Your task to perform on an android device: turn off improve location accuracy Image 0: 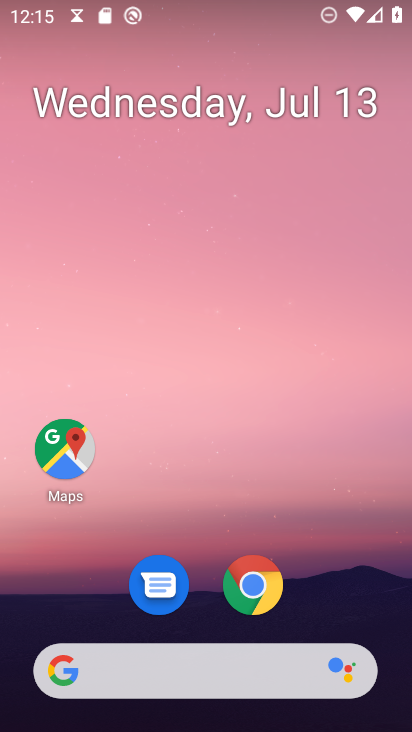
Step 0: drag from (128, 661) to (276, 106)
Your task to perform on an android device: turn off improve location accuracy Image 1: 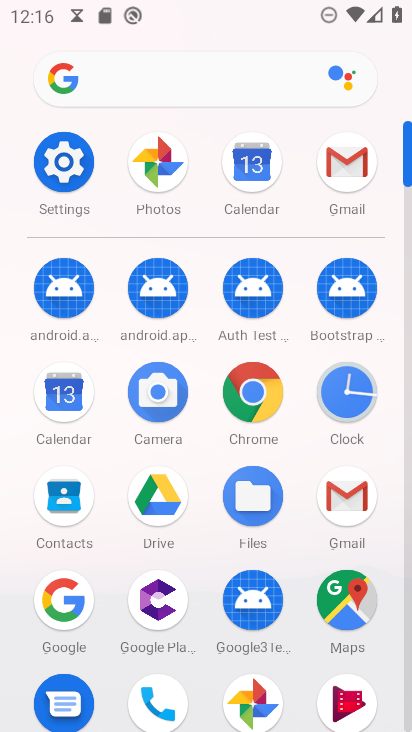
Step 1: click (64, 171)
Your task to perform on an android device: turn off improve location accuracy Image 2: 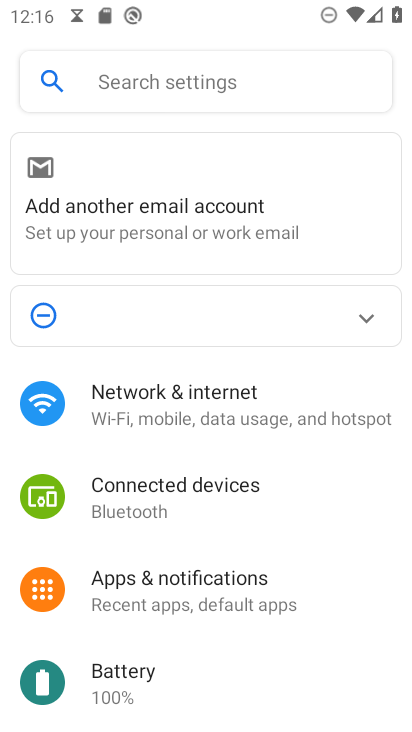
Step 2: drag from (188, 553) to (247, 193)
Your task to perform on an android device: turn off improve location accuracy Image 3: 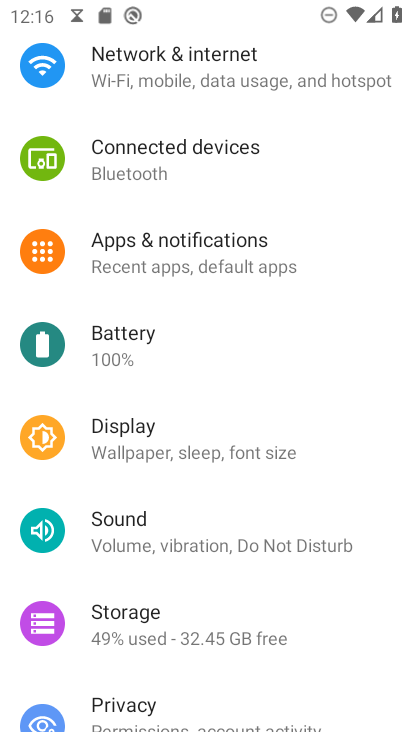
Step 3: drag from (156, 598) to (252, 330)
Your task to perform on an android device: turn off improve location accuracy Image 4: 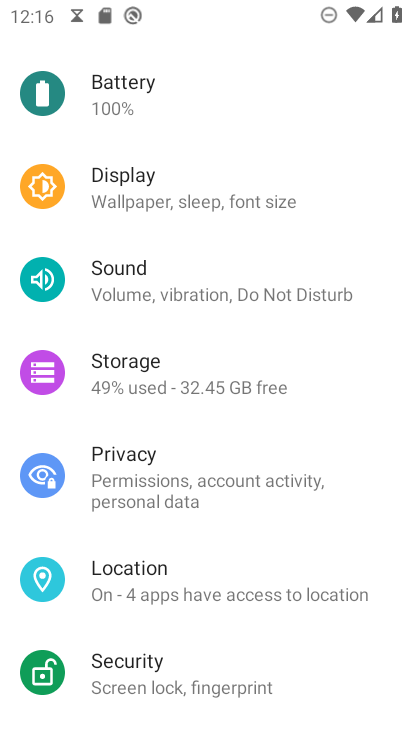
Step 4: click (148, 591)
Your task to perform on an android device: turn off improve location accuracy Image 5: 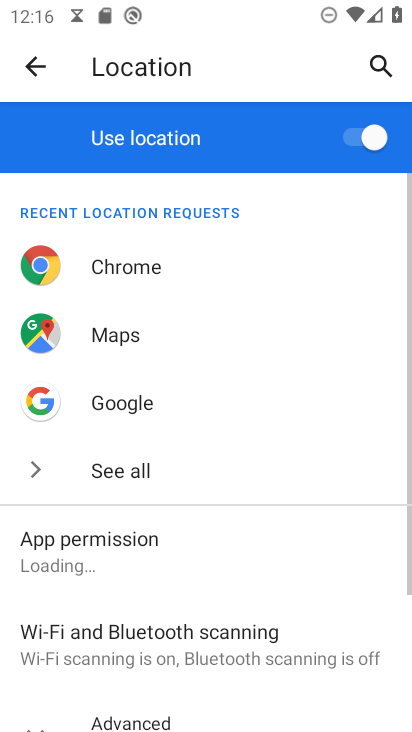
Step 5: drag from (146, 594) to (287, 92)
Your task to perform on an android device: turn off improve location accuracy Image 6: 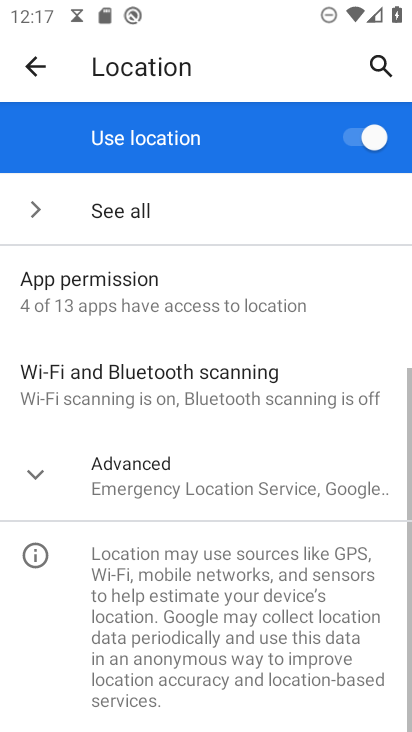
Step 6: click (101, 483)
Your task to perform on an android device: turn off improve location accuracy Image 7: 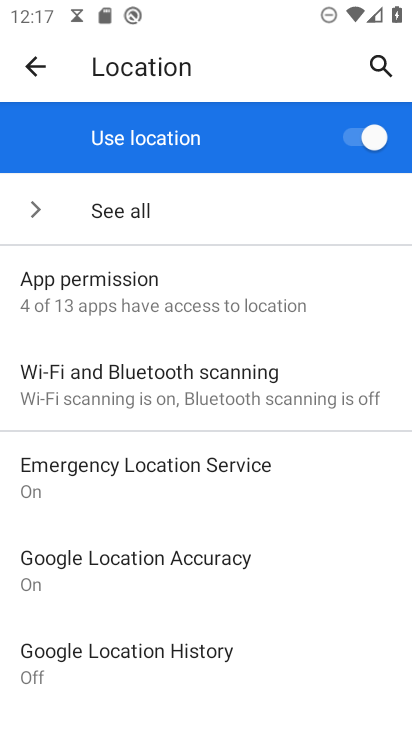
Step 7: click (80, 557)
Your task to perform on an android device: turn off improve location accuracy Image 8: 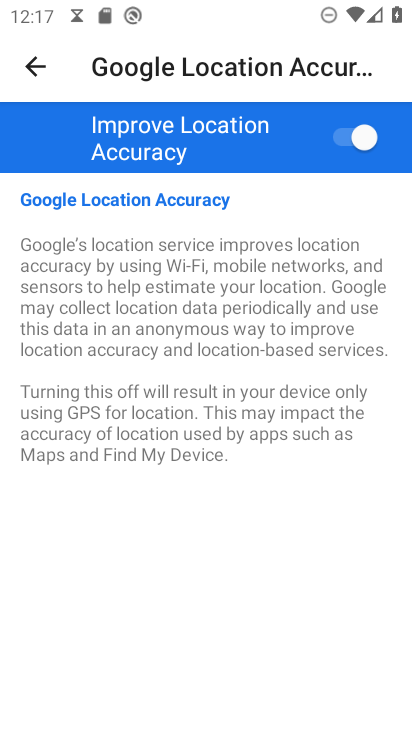
Step 8: click (335, 134)
Your task to perform on an android device: turn off improve location accuracy Image 9: 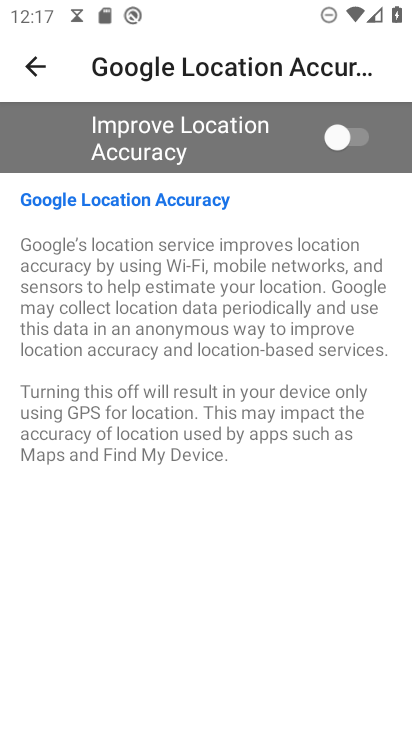
Step 9: task complete